Your task to perform on an android device: turn notification dots on Image 0: 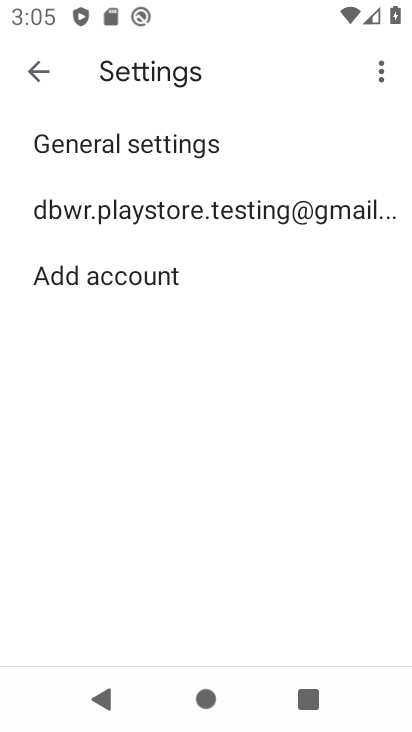
Step 0: press home button
Your task to perform on an android device: turn notification dots on Image 1: 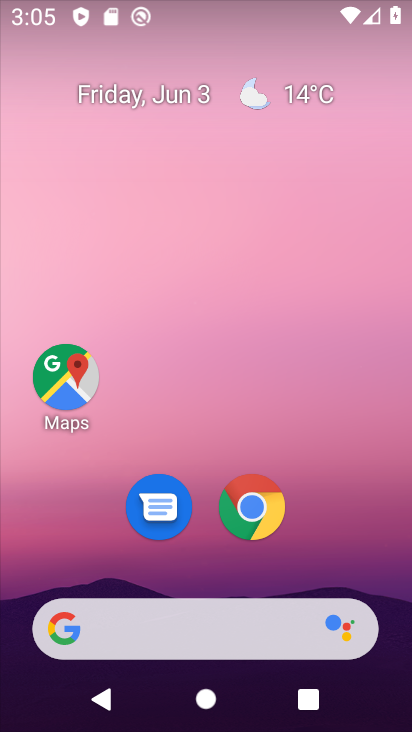
Step 1: drag from (191, 574) to (255, 199)
Your task to perform on an android device: turn notification dots on Image 2: 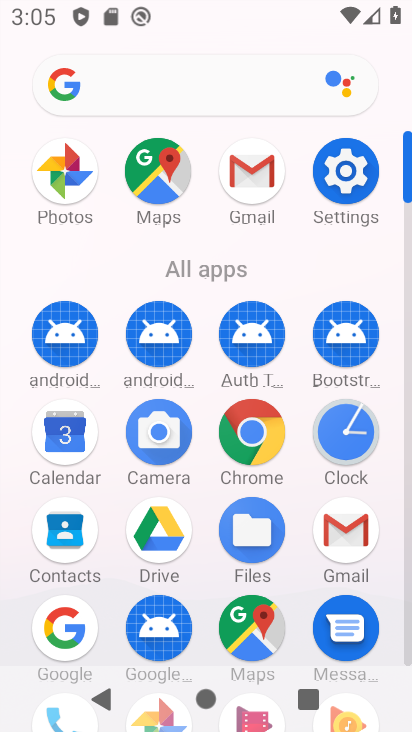
Step 2: click (352, 172)
Your task to perform on an android device: turn notification dots on Image 3: 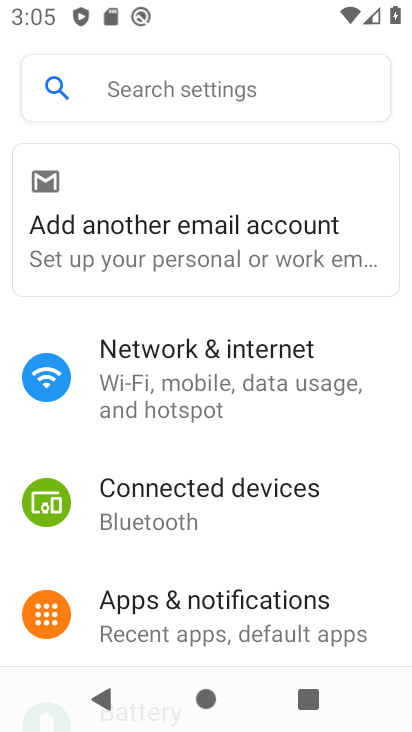
Step 3: click (216, 600)
Your task to perform on an android device: turn notification dots on Image 4: 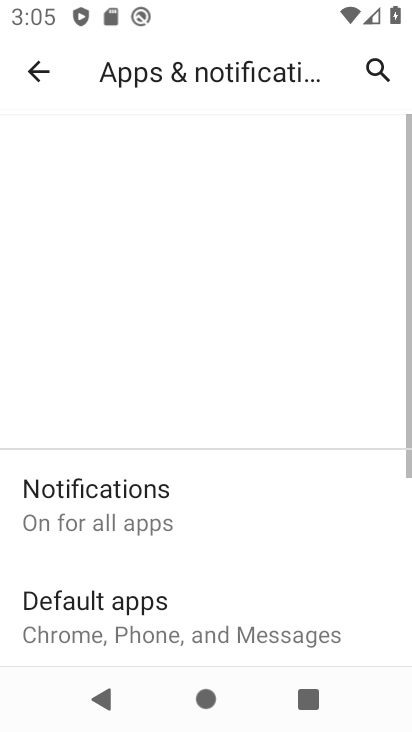
Step 4: click (126, 520)
Your task to perform on an android device: turn notification dots on Image 5: 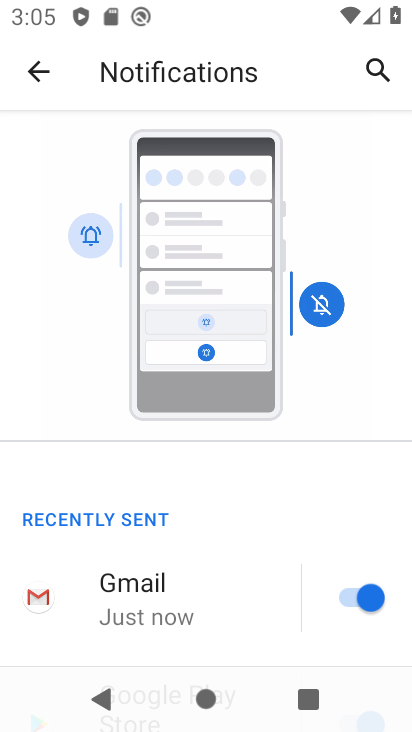
Step 5: drag from (216, 594) to (289, 176)
Your task to perform on an android device: turn notification dots on Image 6: 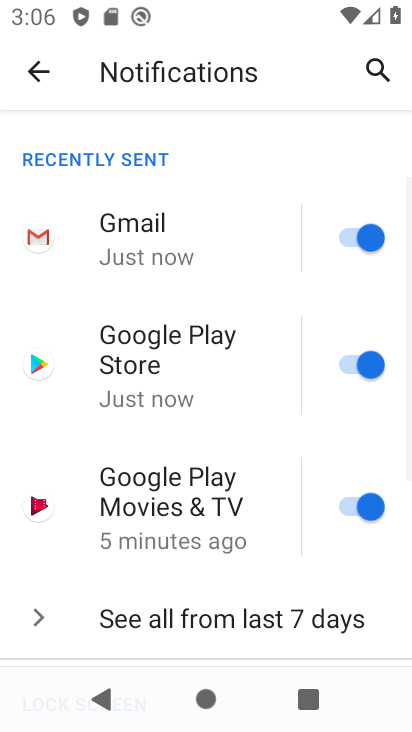
Step 6: drag from (202, 580) to (302, 207)
Your task to perform on an android device: turn notification dots on Image 7: 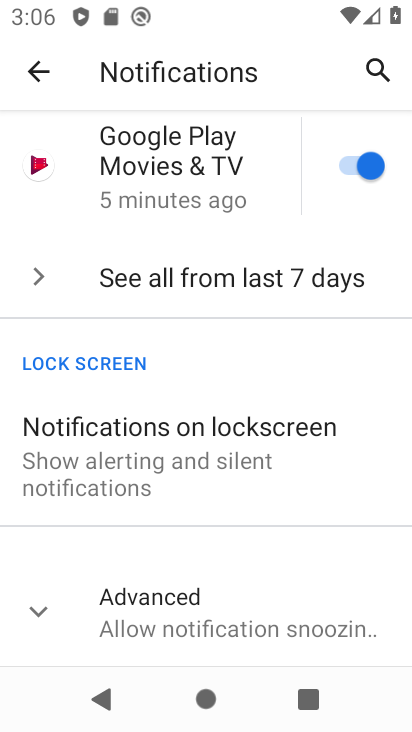
Step 7: drag from (158, 532) to (241, 336)
Your task to perform on an android device: turn notification dots on Image 8: 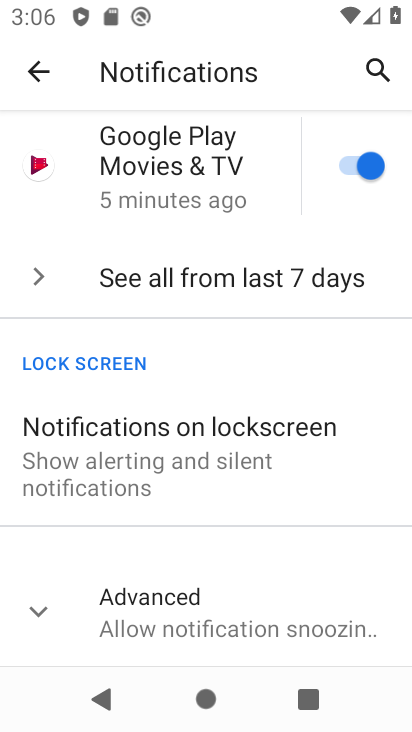
Step 8: click (46, 604)
Your task to perform on an android device: turn notification dots on Image 9: 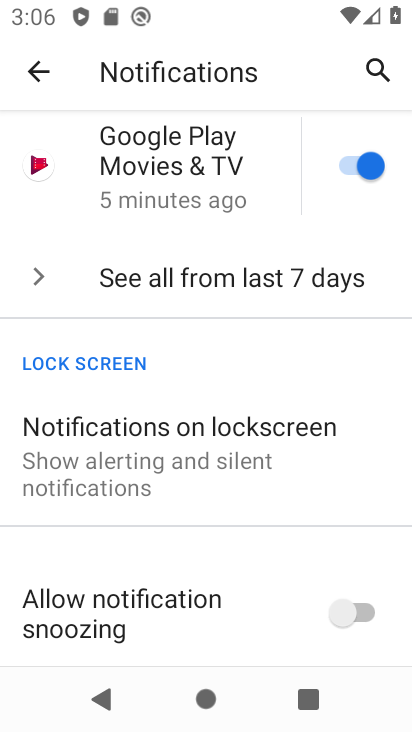
Step 9: task complete